Your task to perform on an android device: Add "macbook pro" to the cart on newegg Image 0: 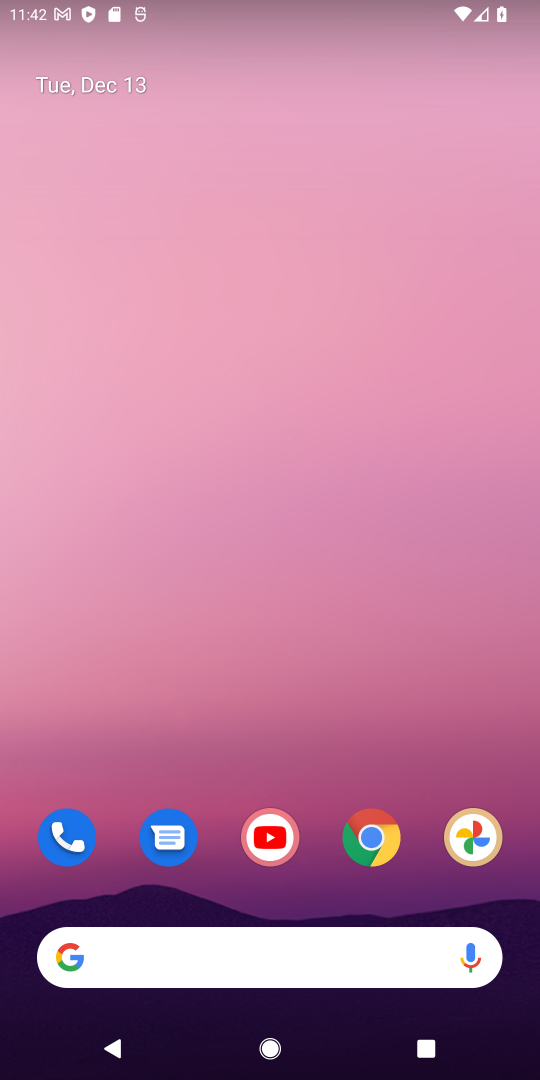
Step 0: click (235, 964)
Your task to perform on an android device: Add "macbook pro" to the cart on newegg Image 1: 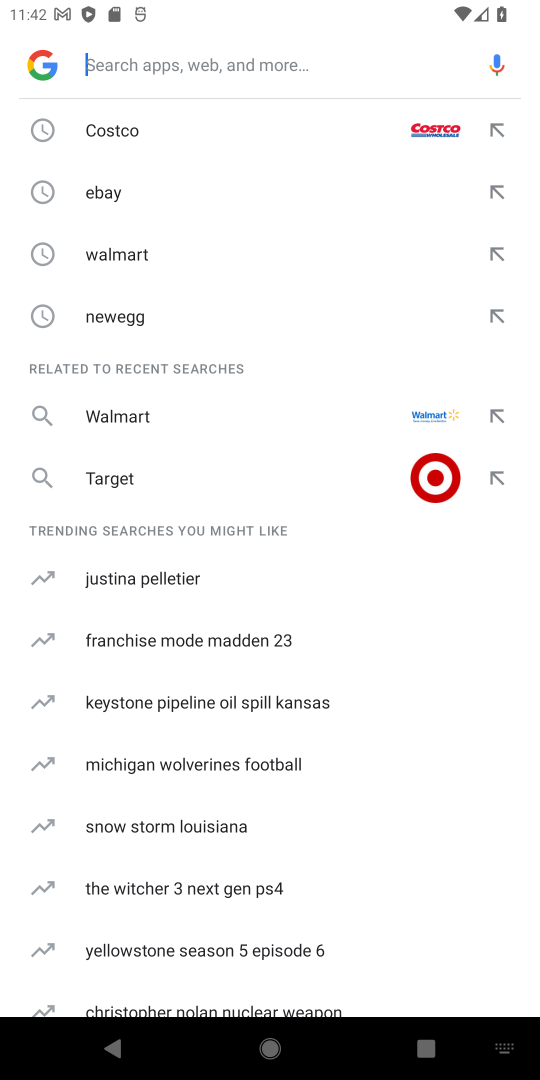
Step 1: type "newegg"
Your task to perform on an android device: Add "macbook pro" to the cart on newegg Image 2: 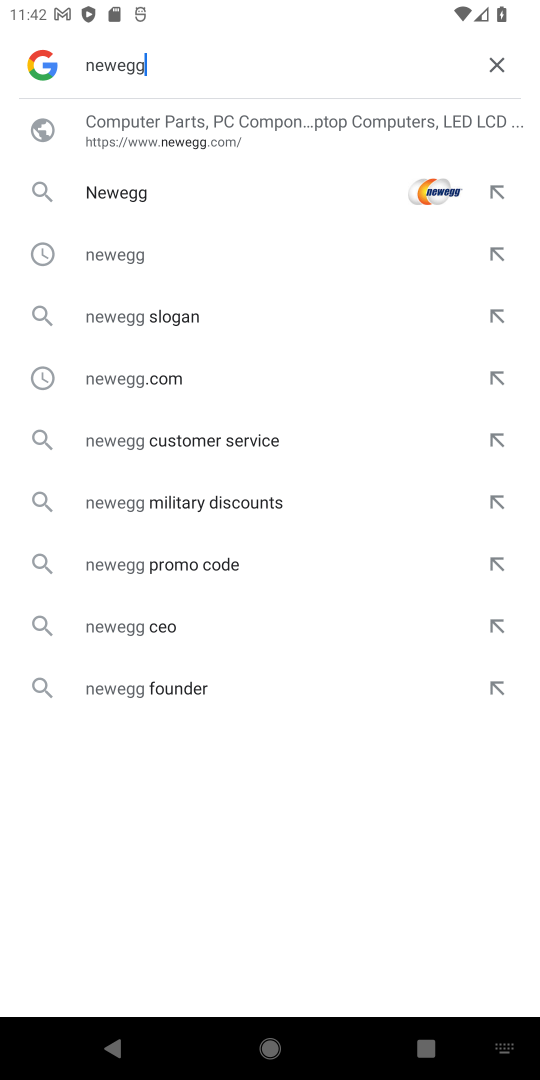
Step 2: click (306, 150)
Your task to perform on an android device: Add "macbook pro" to the cart on newegg Image 3: 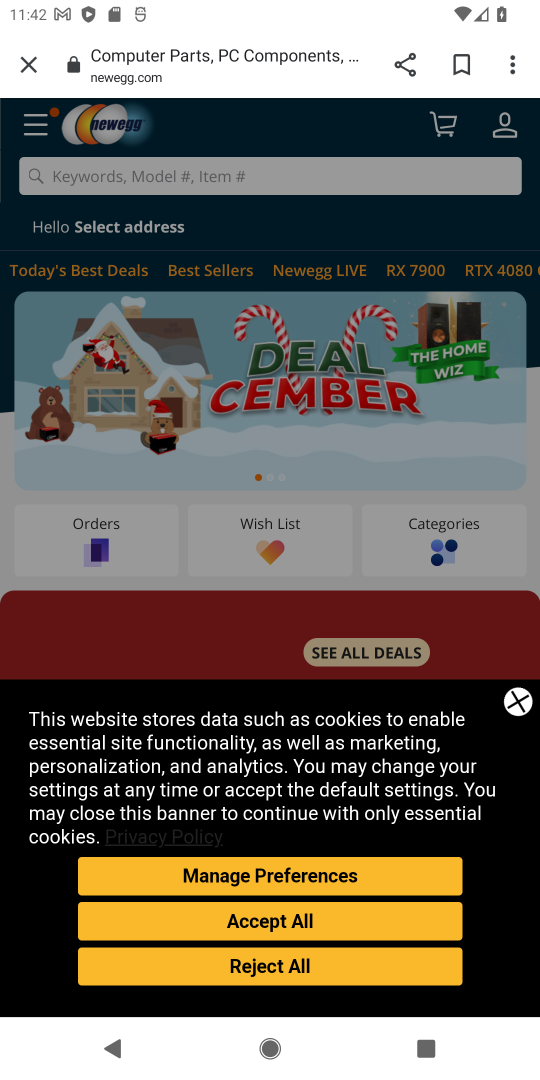
Step 3: click (174, 181)
Your task to perform on an android device: Add "macbook pro" to the cart on newegg Image 4: 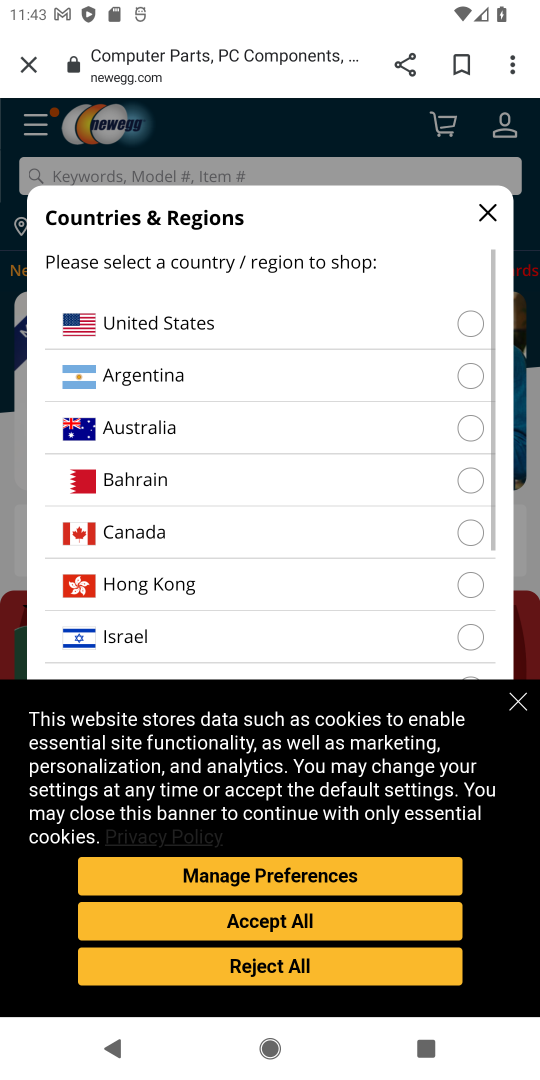
Step 4: type "macbook pro"
Your task to perform on an android device: Add "macbook pro" to the cart on newegg Image 5: 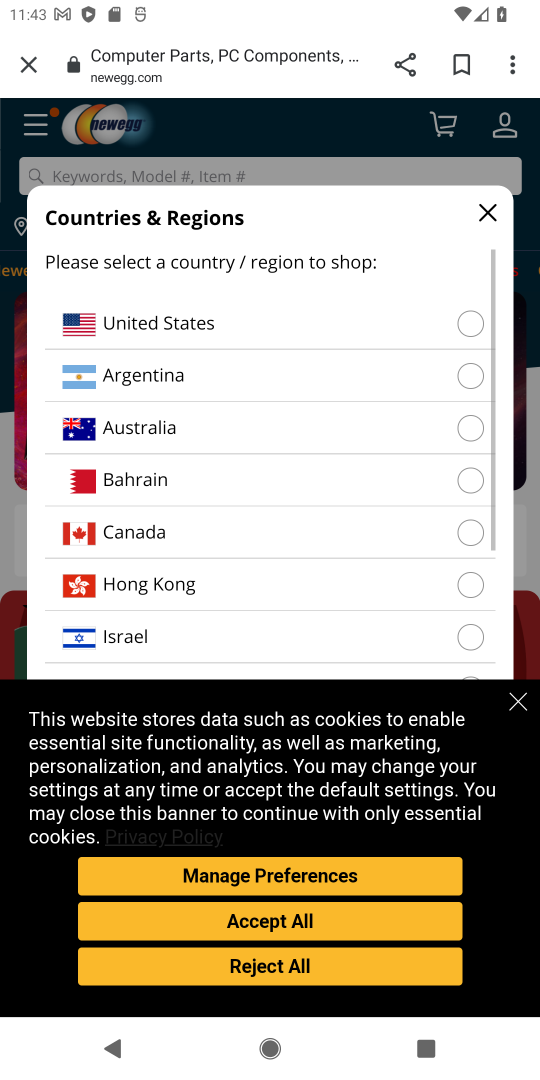
Step 5: click (273, 336)
Your task to perform on an android device: Add "macbook pro" to the cart on newegg Image 6: 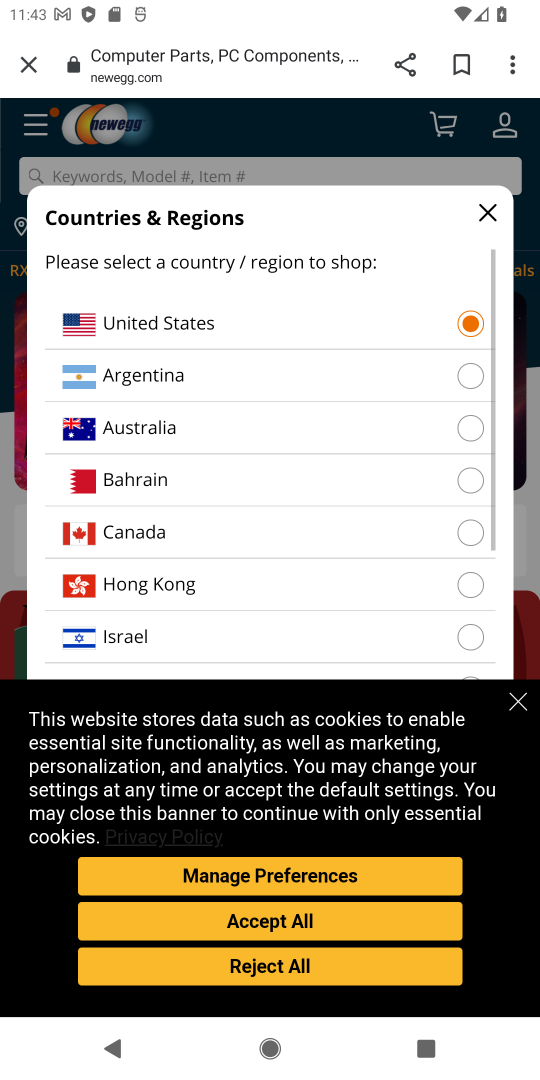
Step 6: click (330, 927)
Your task to perform on an android device: Add "macbook pro" to the cart on newegg Image 7: 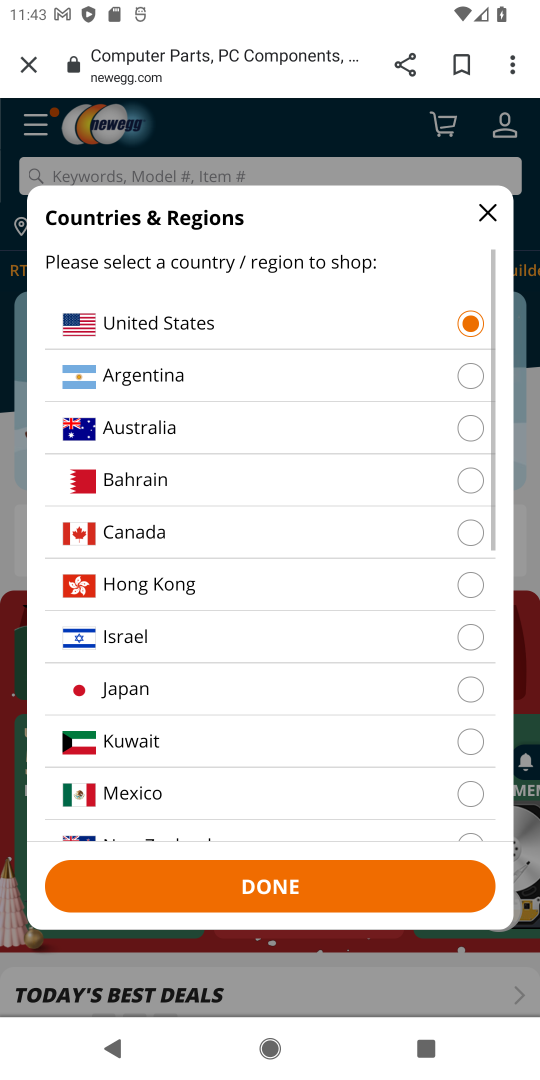
Step 7: click (317, 907)
Your task to perform on an android device: Add "macbook pro" to the cart on newegg Image 8: 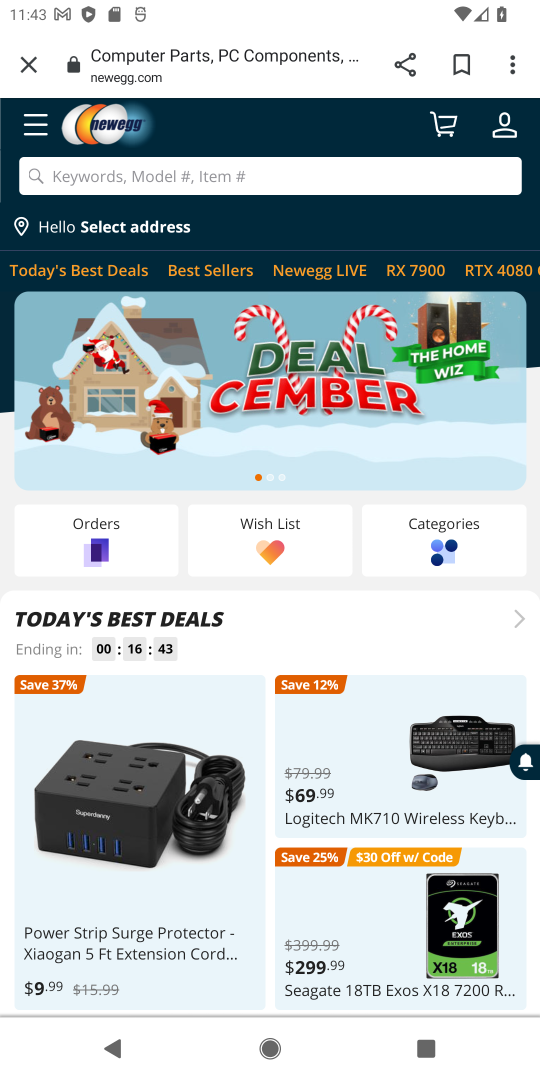
Step 8: click (212, 169)
Your task to perform on an android device: Add "macbook pro" to the cart on newegg Image 9: 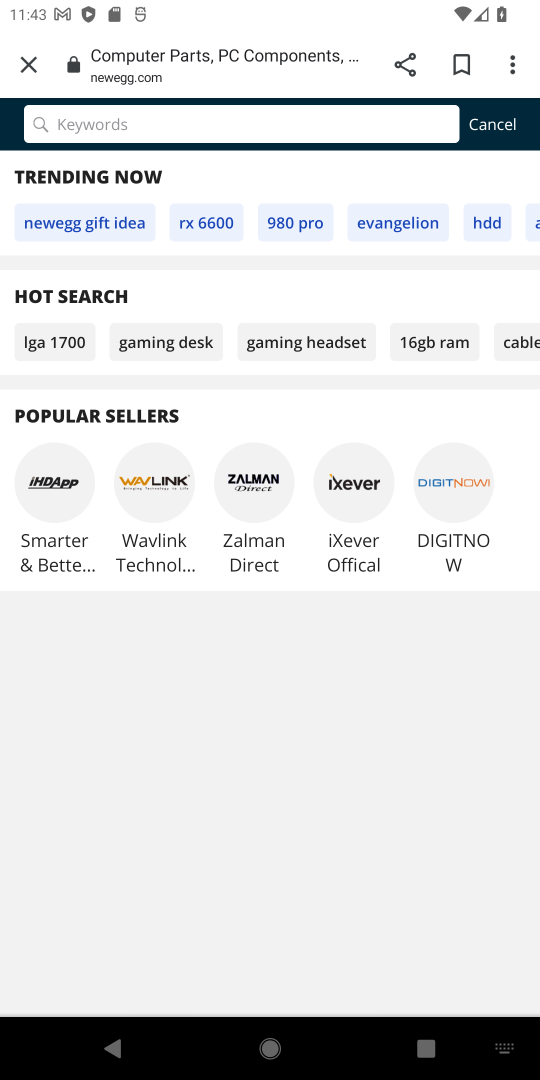
Step 9: type "macbook pro"
Your task to perform on an android device: Add "macbook pro" to the cart on newegg Image 10: 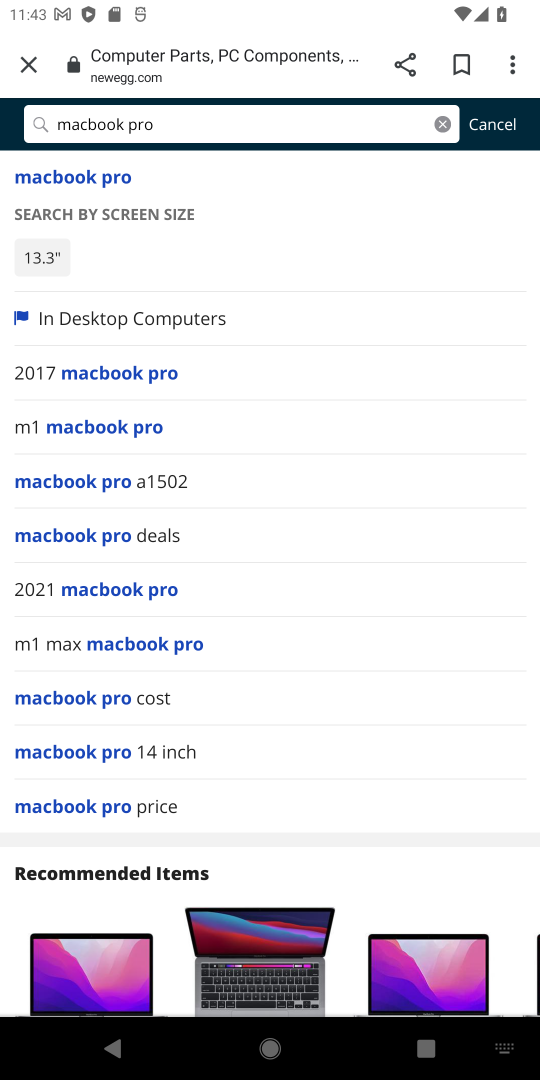
Step 10: click (8, 176)
Your task to perform on an android device: Add "macbook pro" to the cart on newegg Image 11: 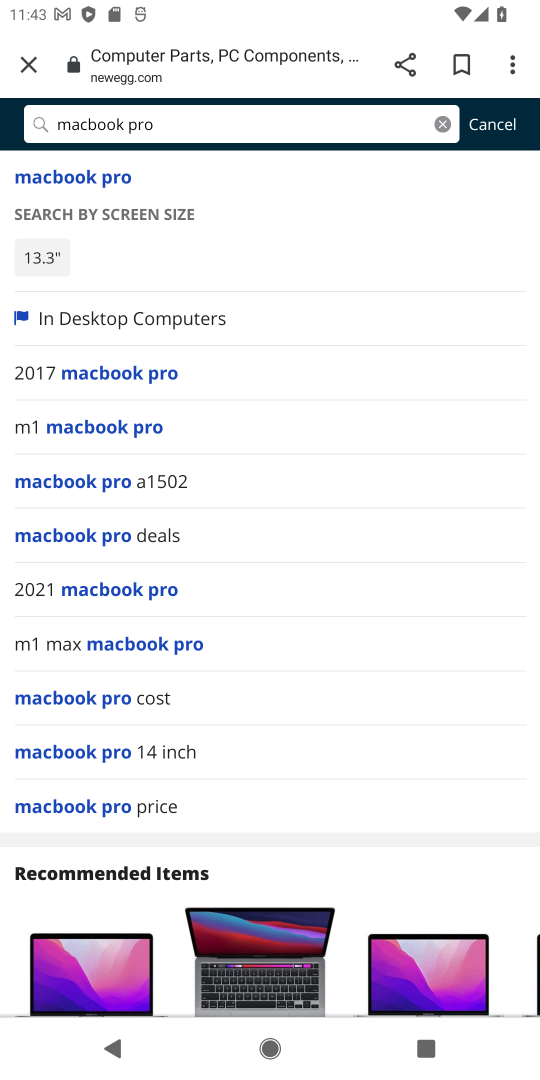
Step 11: click (38, 185)
Your task to perform on an android device: Add "macbook pro" to the cart on newegg Image 12: 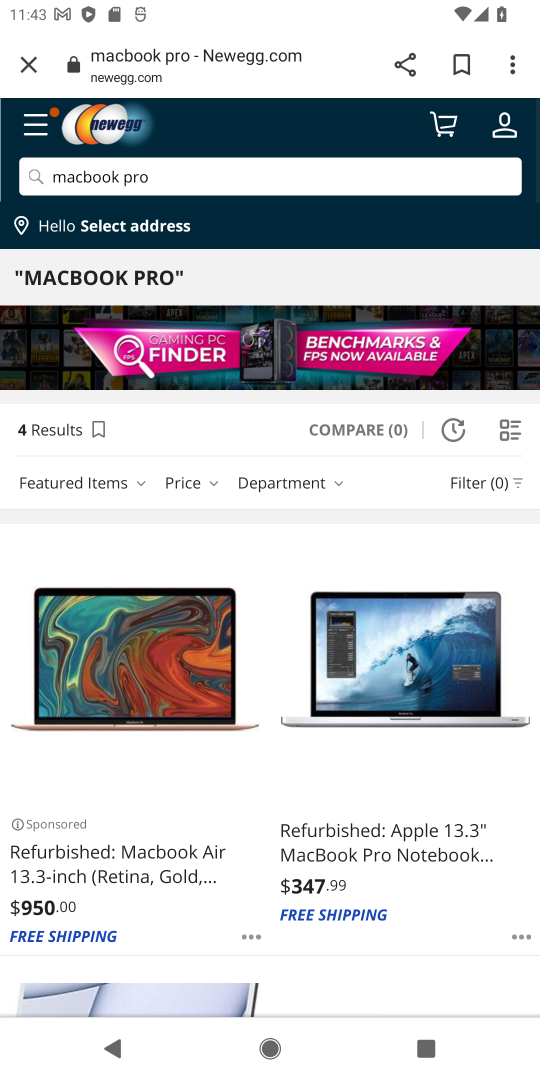
Step 12: task complete